Your task to perform on an android device: What's the weather going to be this weekend? Image 0: 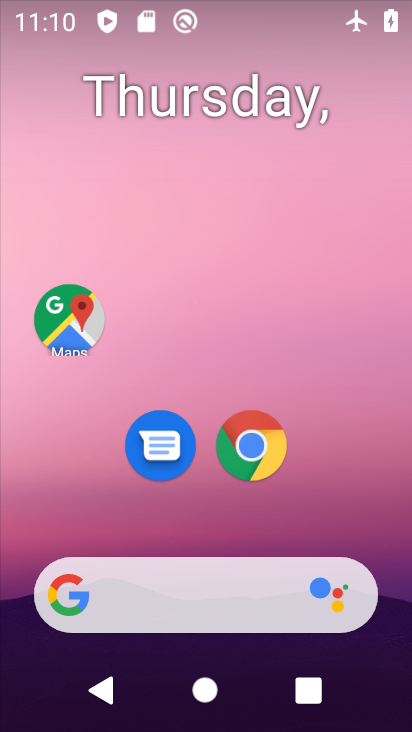
Step 0: drag from (212, 496) to (212, 90)
Your task to perform on an android device: What's the weather going to be this weekend? Image 1: 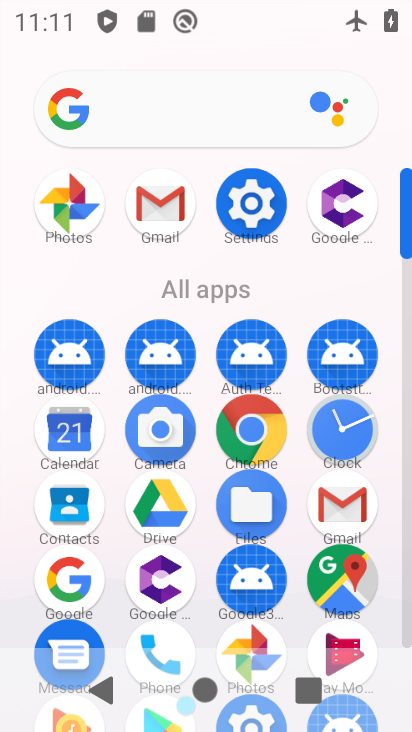
Step 1: click (63, 589)
Your task to perform on an android device: What's the weather going to be this weekend? Image 2: 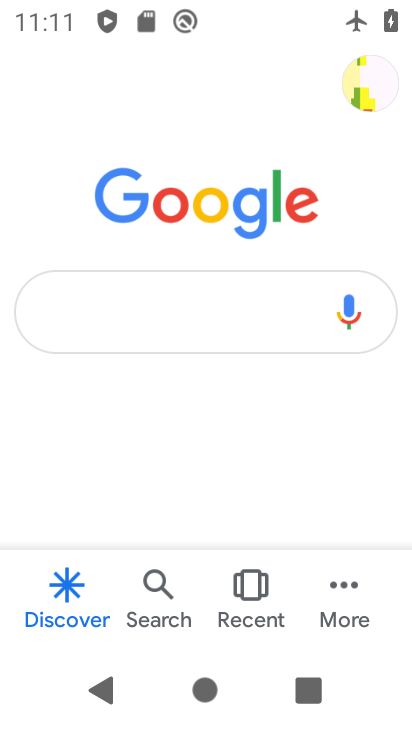
Step 2: click (168, 308)
Your task to perform on an android device: What's the weather going to be this weekend? Image 3: 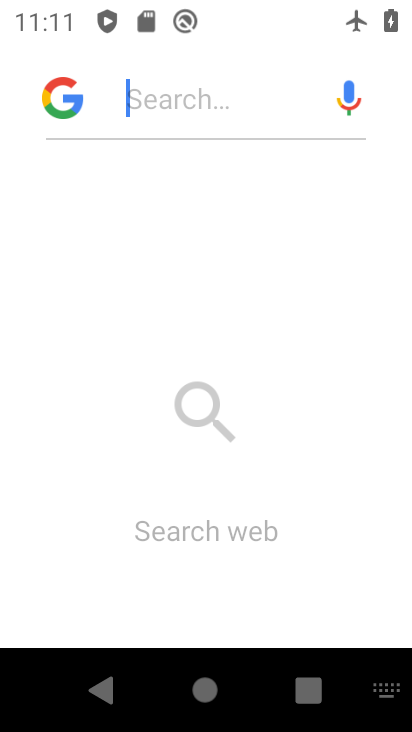
Step 3: type "weather"
Your task to perform on an android device: What's the weather going to be this weekend? Image 4: 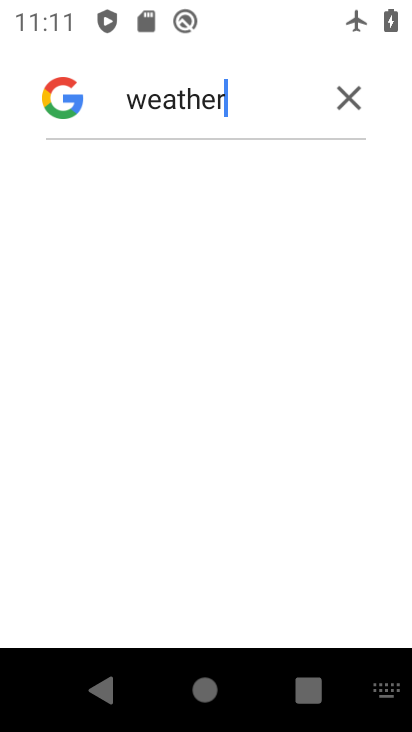
Step 4: task complete